Your task to perform on an android device: Go to network settings Image 0: 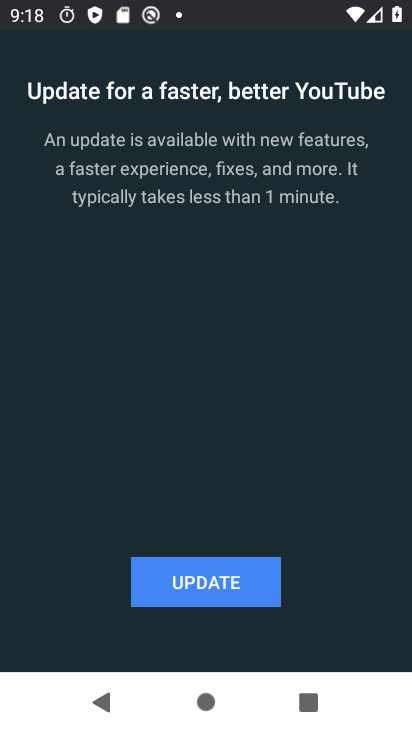
Step 0: press home button
Your task to perform on an android device: Go to network settings Image 1: 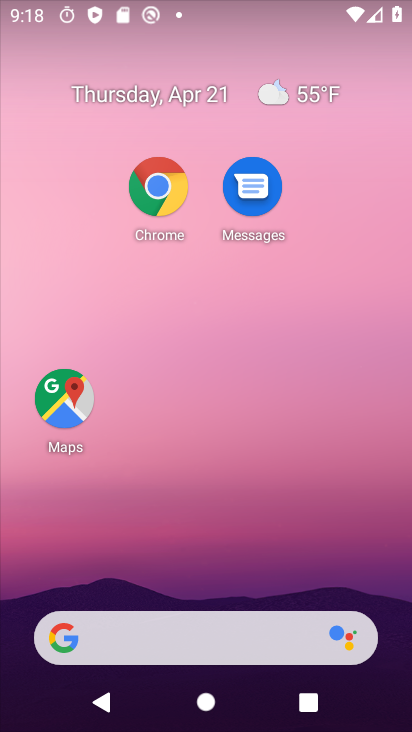
Step 1: drag from (205, 389) to (228, 6)
Your task to perform on an android device: Go to network settings Image 2: 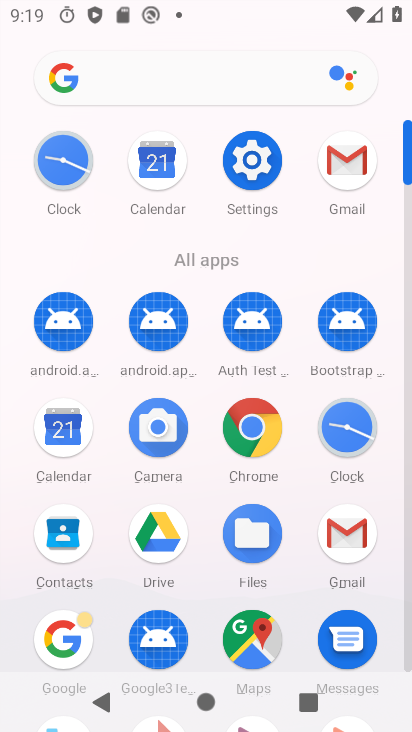
Step 2: click (259, 170)
Your task to perform on an android device: Go to network settings Image 3: 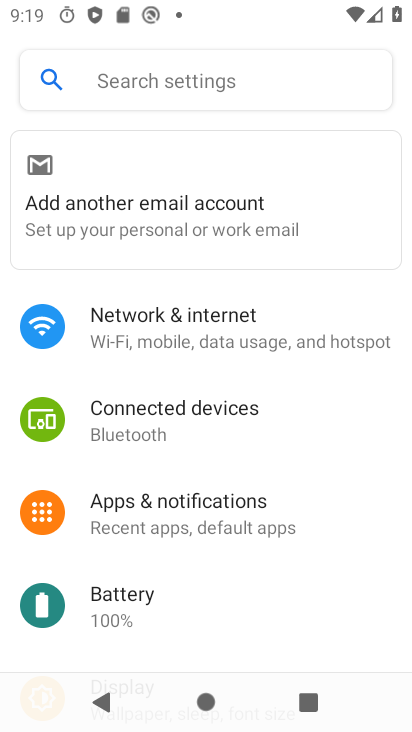
Step 3: click (189, 315)
Your task to perform on an android device: Go to network settings Image 4: 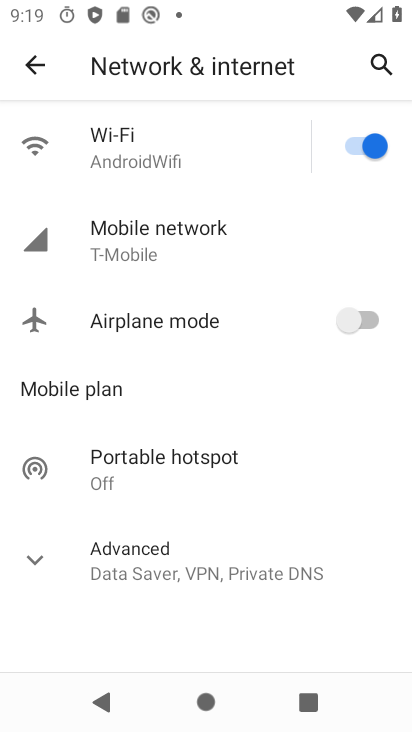
Step 4: click (192, 243)
Your task to perform on an android device: Go to network settings Image 5: 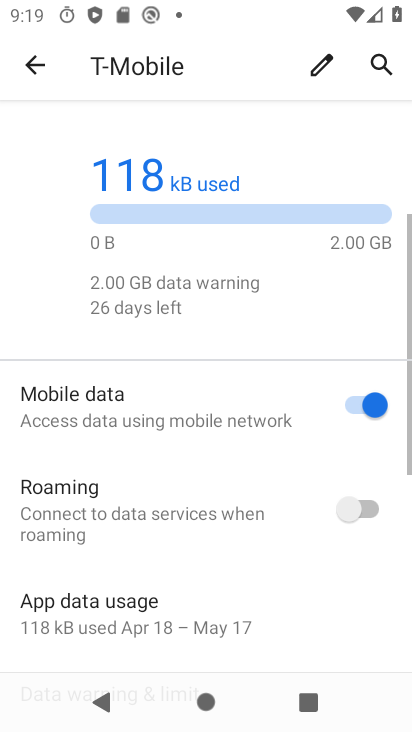
Step 5: task complete